Your task to perform on an android device: turn off airplane mode Image 0: 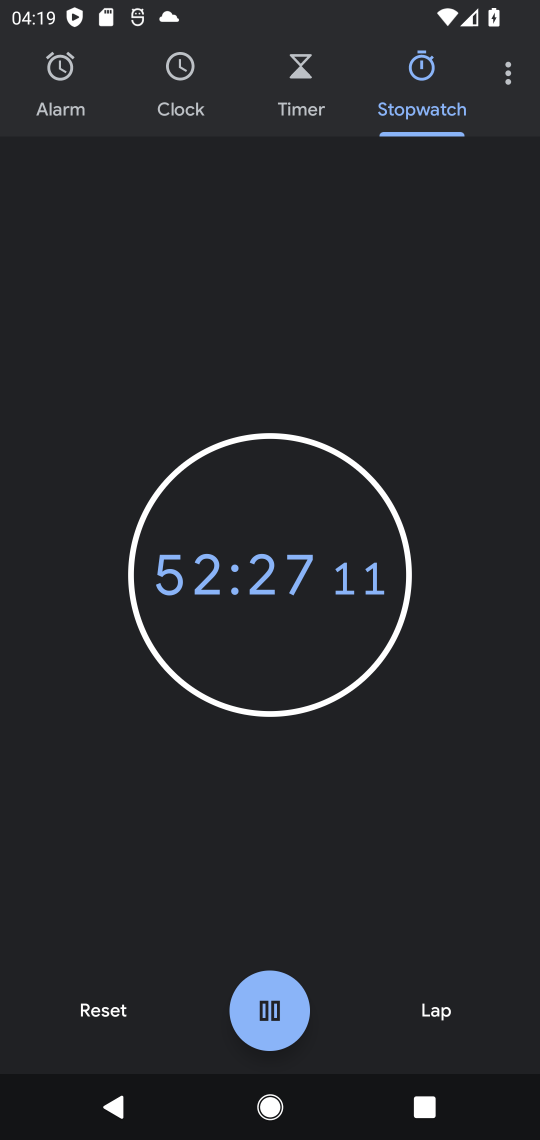
Step 0: press home button
Your task to perform on an android device: turn off airplane mode Image 1: 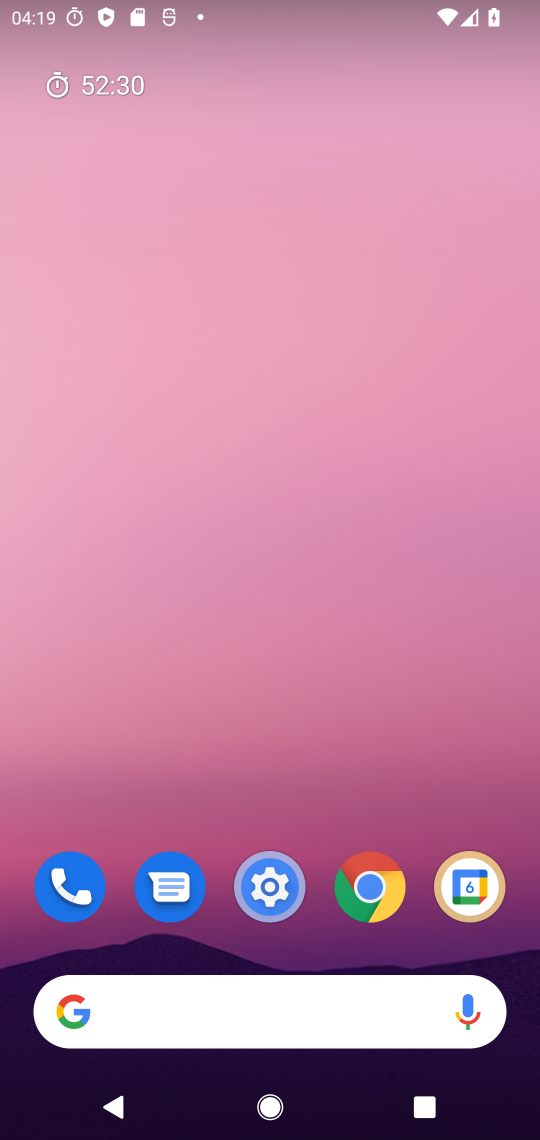
Step 1: drag from (408, 809) to (428, 360)
Your task to perform on an android device: turn off airplane mode Image 2: 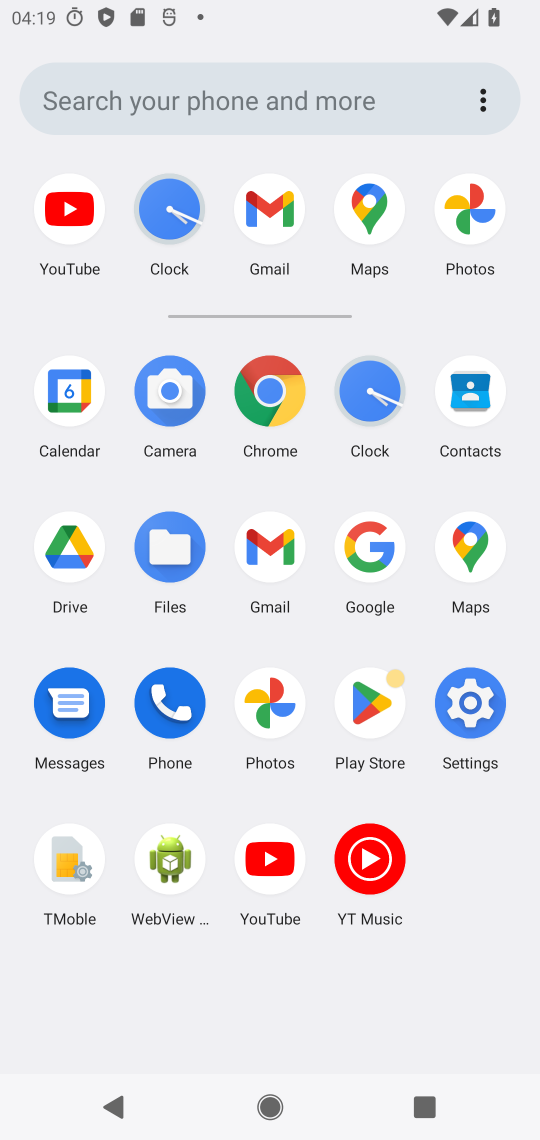
Step 2: click (482, 707)
Your task to perform on an android device: turn off airplane mode Image 3: 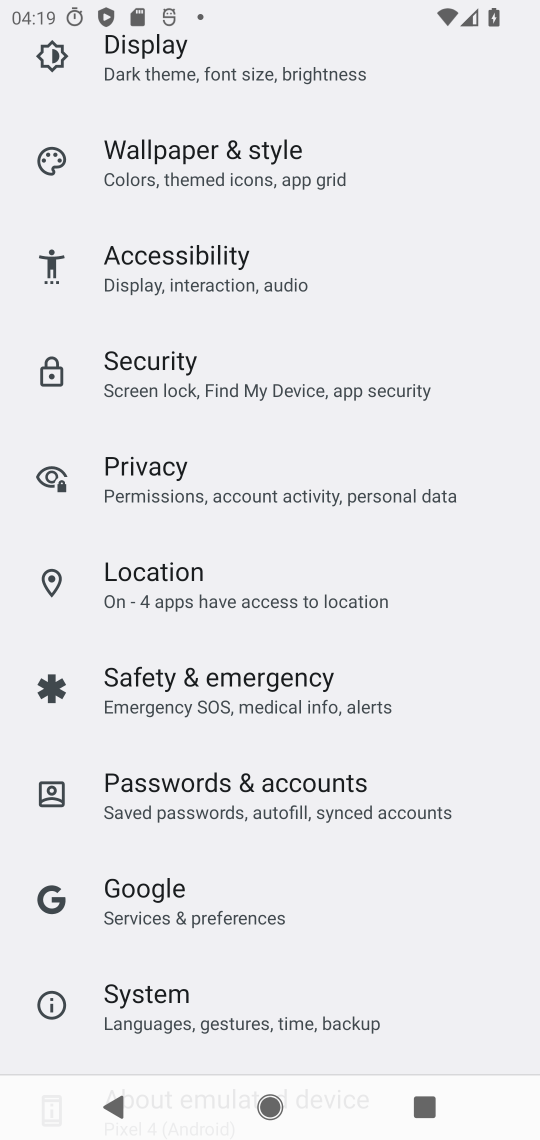
Step 3: drag from (459, 535) to (459, 610)
Your task to perform on an android device: turn off airplane mode Image 4: 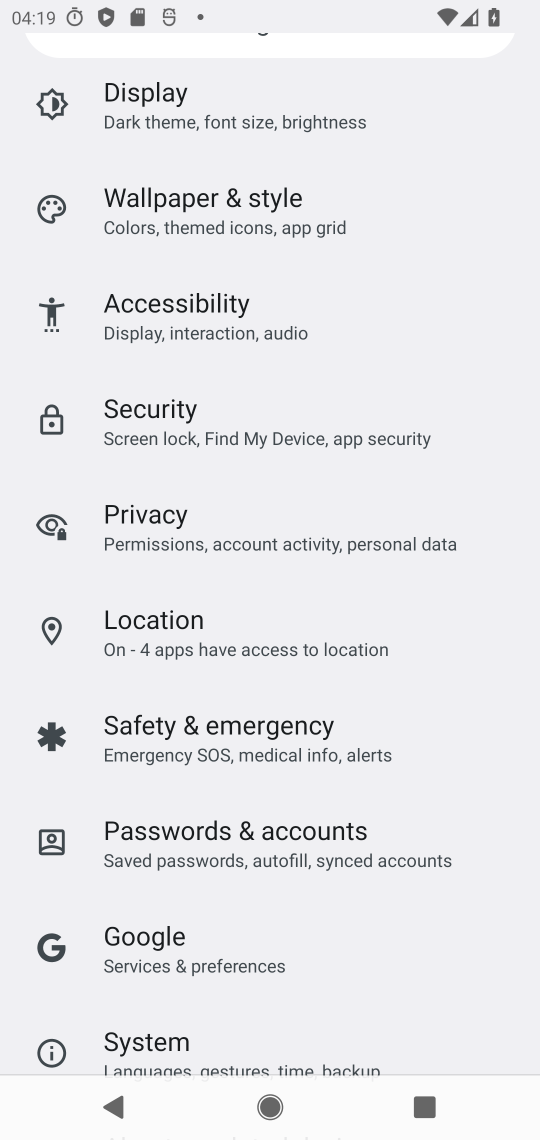
Step 4: drag from (468, 386) to (477, 562)
Your task to perform on an android device: turn off airplane mode Image 5: 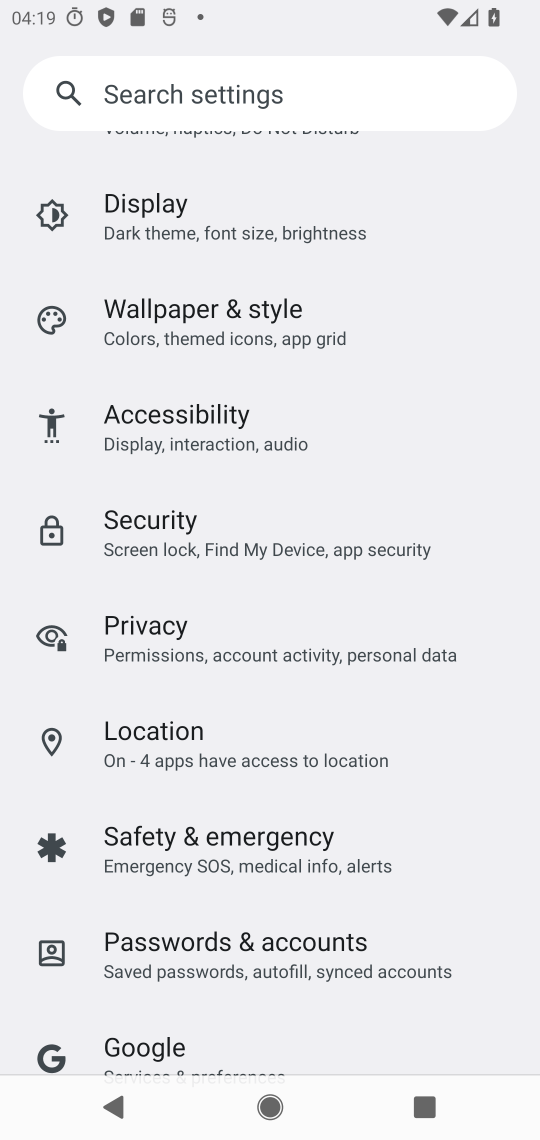
Step 5: drag from (473, 323) to (469, 519)
Your task to perform on an android device: turn off airplane mode Image 6: 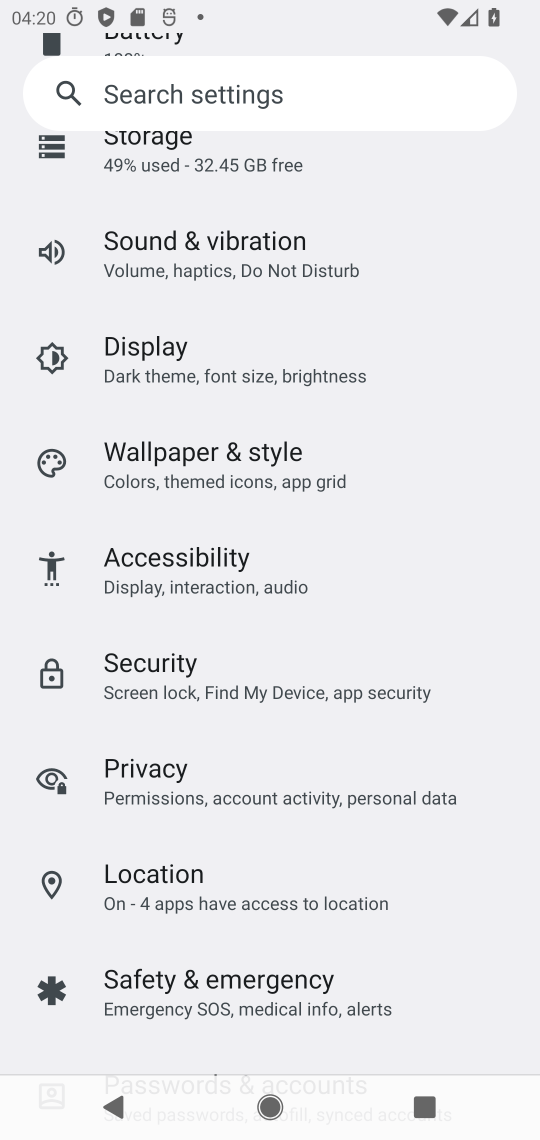
Step 6: drag from (464, 375) to (475, 573)
Your task to perform on an android device: turn off airplane mode Image 7: 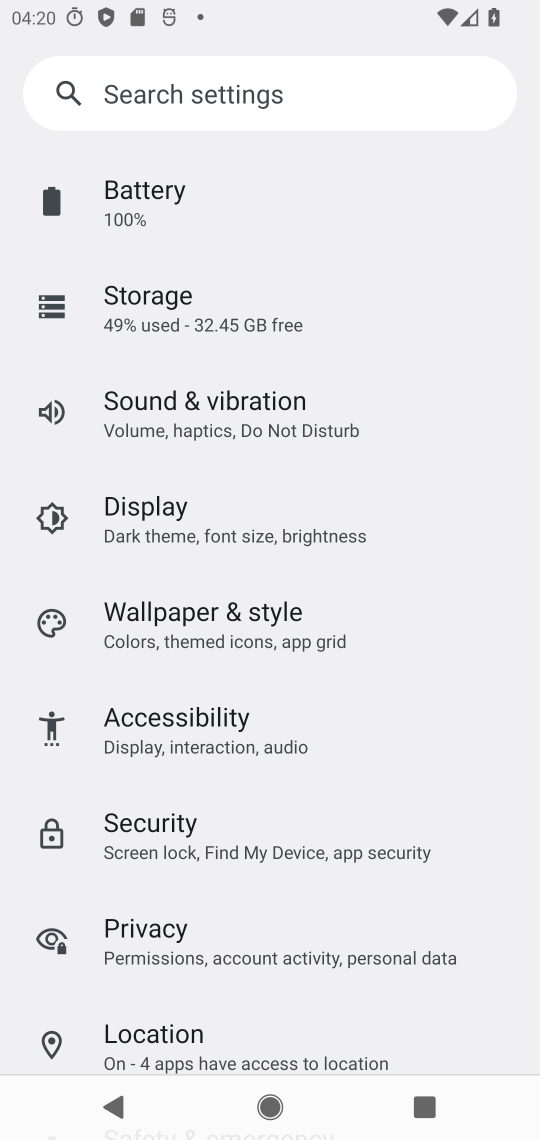
Step 7: drag from (471, 419) to (480, 581)
Your task to perform on an android device: turn off airplane mode Image 8: 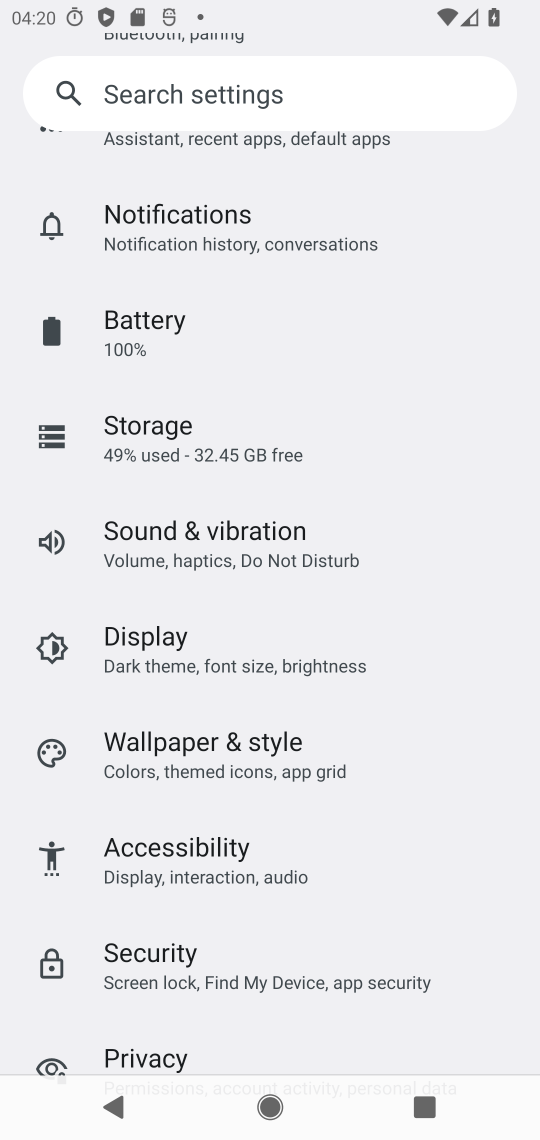
Step 8: drag from (464, 342) to (459, 576)
Your task to perform on an android device: turn off airplane mode Image 9: 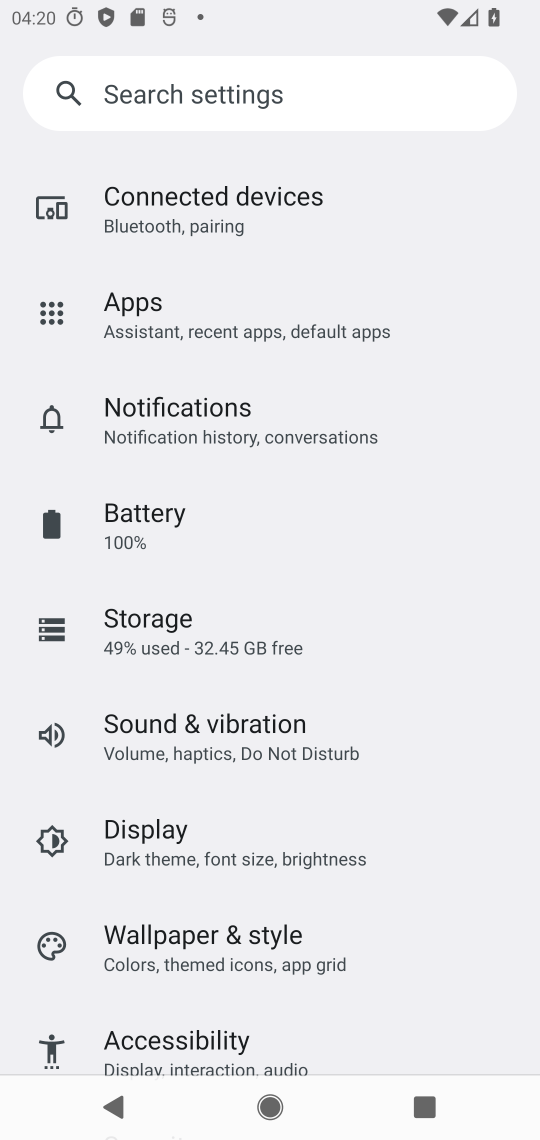
Step 9: drag from (465, 298) to (455, 521)
Your task to perform on an android device: turn off airplane mode Image 10: 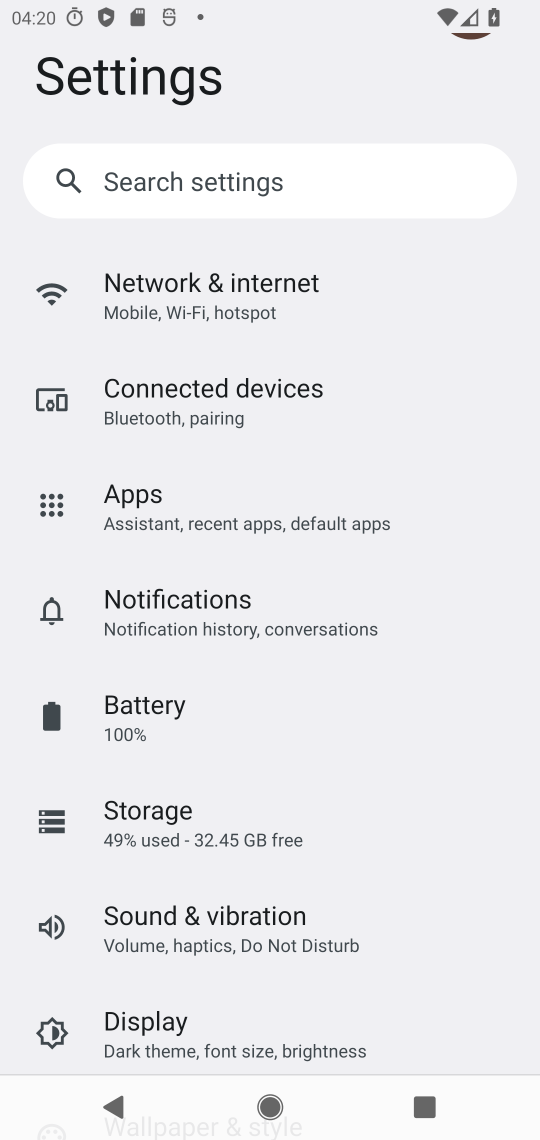
Step 10: drag from (420, 349) to (476, 545)
Your task to perform on an android device: turn off airplane mode Image 11: 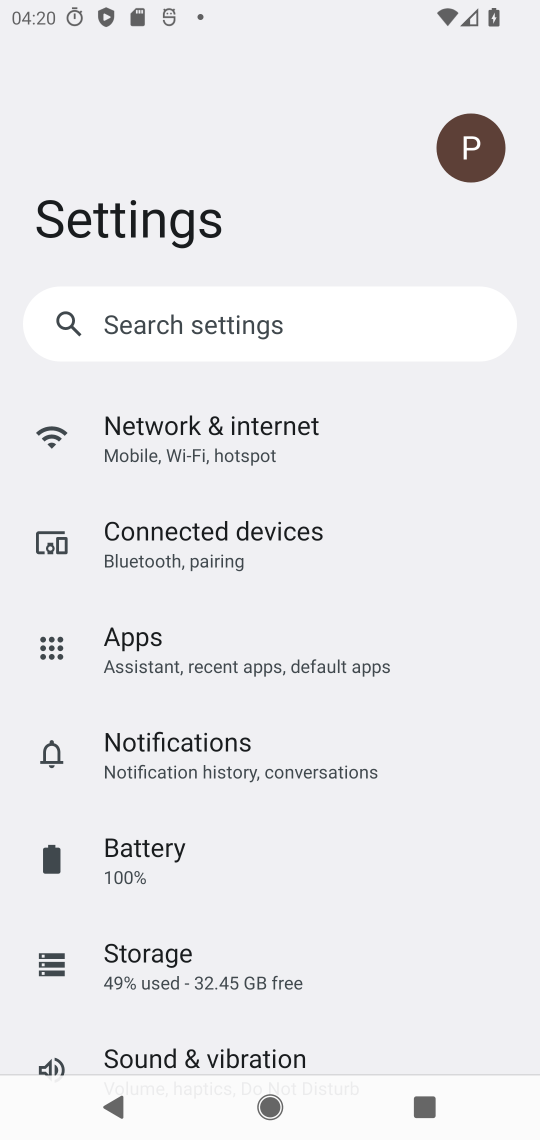
Step 11: click (276, 422)
Your task to perform on an android device: turn off airplane mode Image 12: 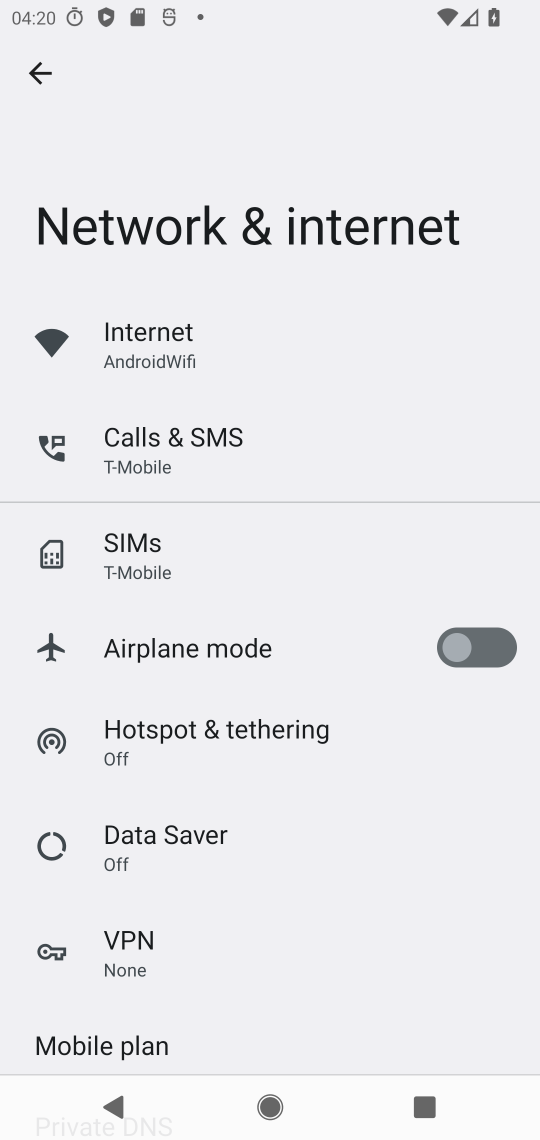
Step 12: task complete